Your task to perform on an android device: Go to sound settings Image 0: 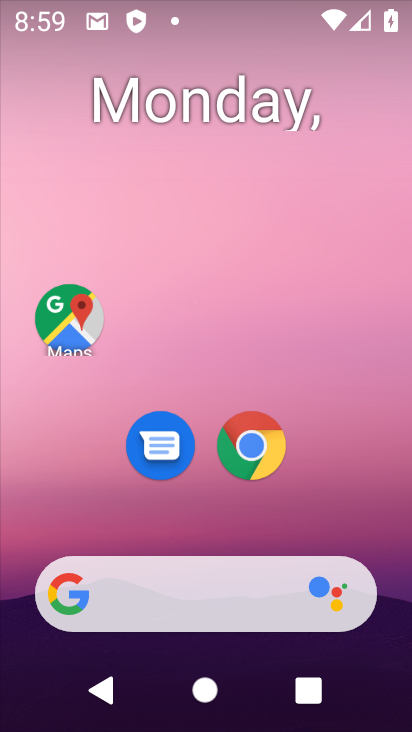
Step 0: drag from (256, 650) to (203, 9)
Your task to perform on an android device: Go to sound settings Image 1: 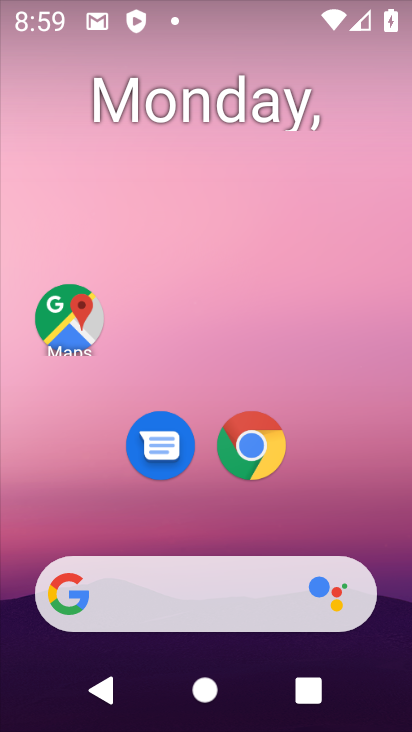
Step 1: drag from (273, 710) to (309, 1)
Your task to perform on an android device: Go to sound settings Image 2: 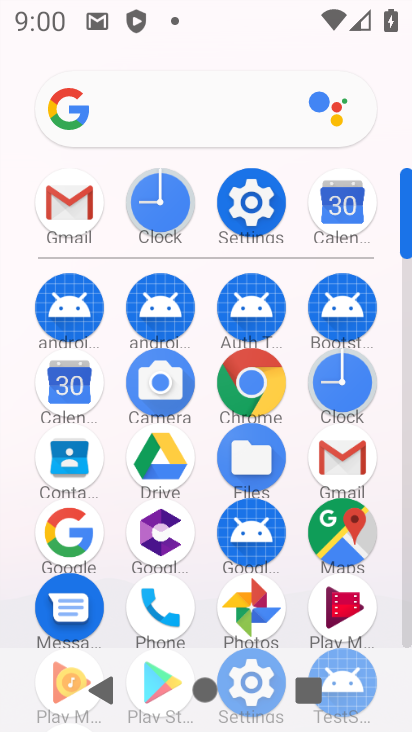
Step 2: click (269, 208)
Your task to perform on an android device: Go to sound settings Image 3: 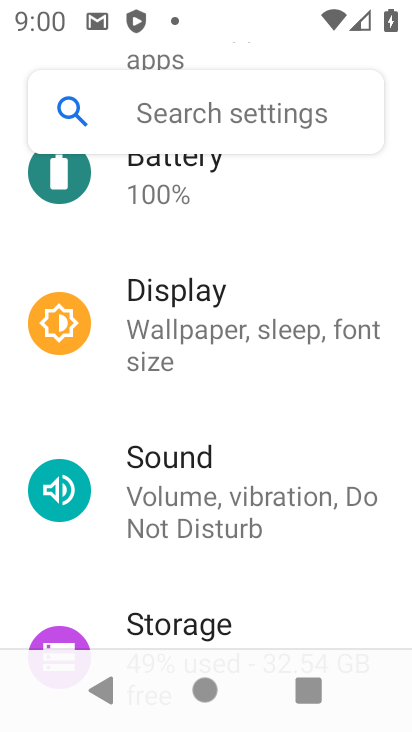
Step 3: click (200, 505)
Your task to perform on an android device: Go to sound settings Image 4: 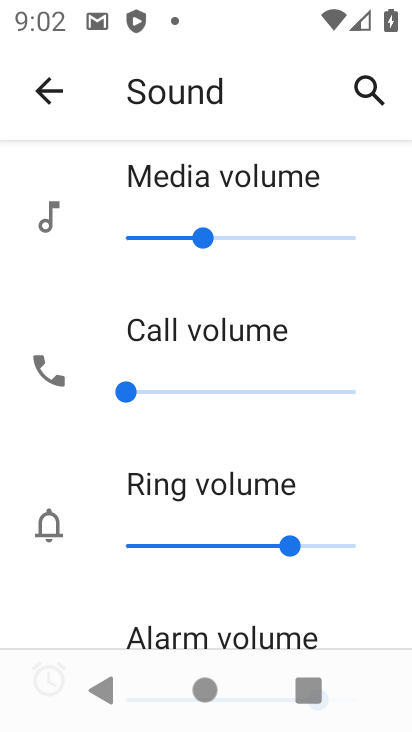
Step 4: task complete